Your task to perform on an android device: change the clock display to show seconds Image 0: 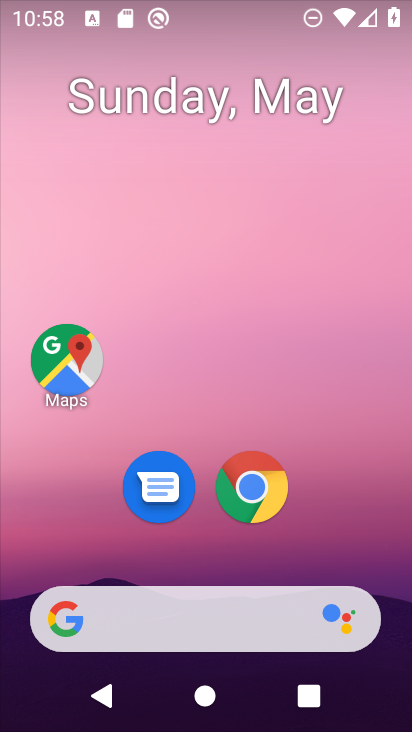
Step 0: drag from (251, 634) to (166, 96)
Your task to perform on an android device: change the clock display to show seconds Image 1: 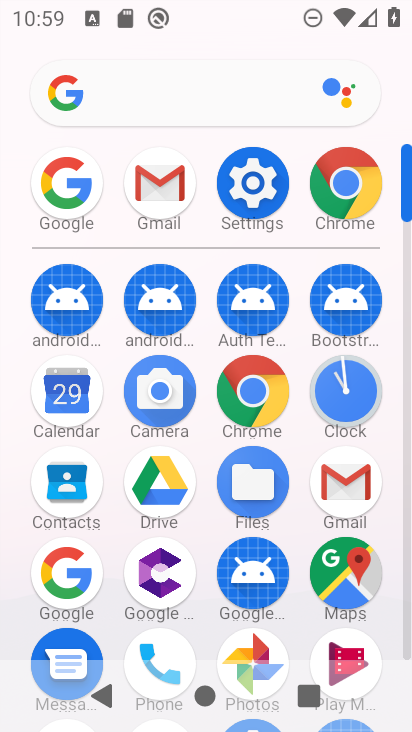
Step 1: click (334, 400)
Your task to perform on an android device: change the clock display to show seconds Image 2: 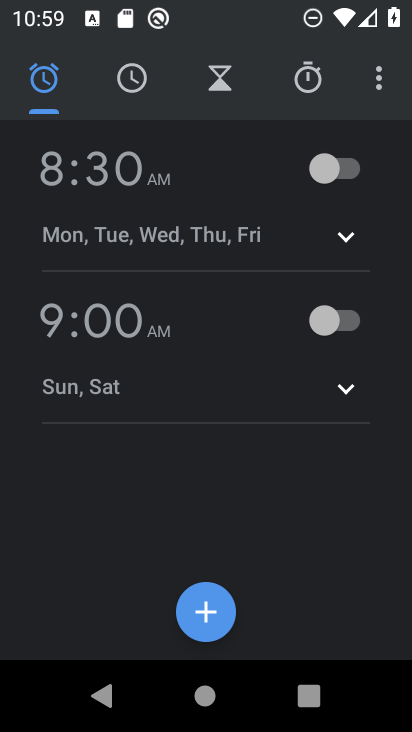
Step 2: click (387, 79)
Your task to perform on an android device: change the clock display to show seconds Image 3: 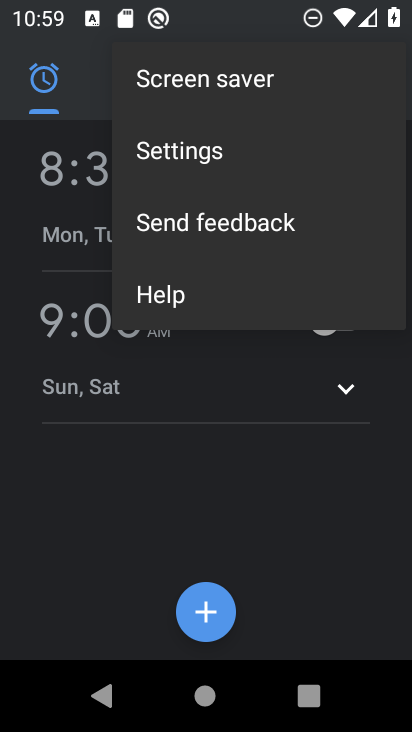
Step 3: click (212, 158)
Your task to perform on an android device: change the clock display to show seconds Image 4: 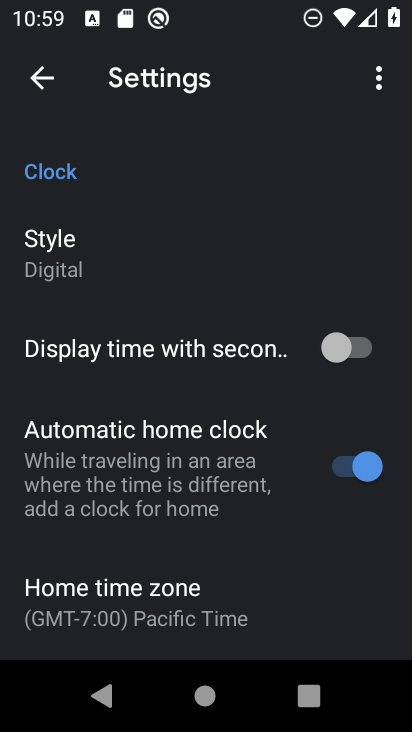
Step 4: click (196, 361)
Your task to perform on an android device: change the clock display to show seconds Image 5: 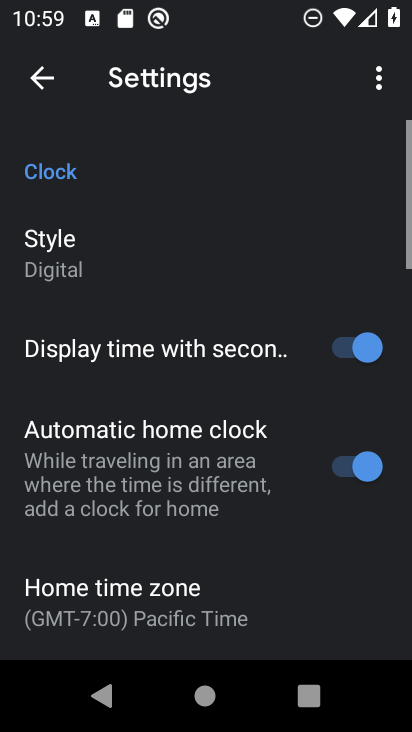
Step 5: task complete